Your task to perform on an android device: remove spam from my inbox in the gmail app Image 0: 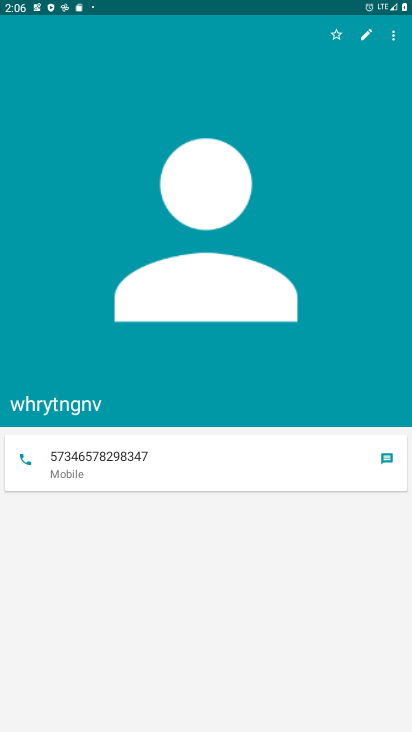
Step 0: press home button
Your task to perform on an android device: remove spam from my inbox in the gmail app Image 1: 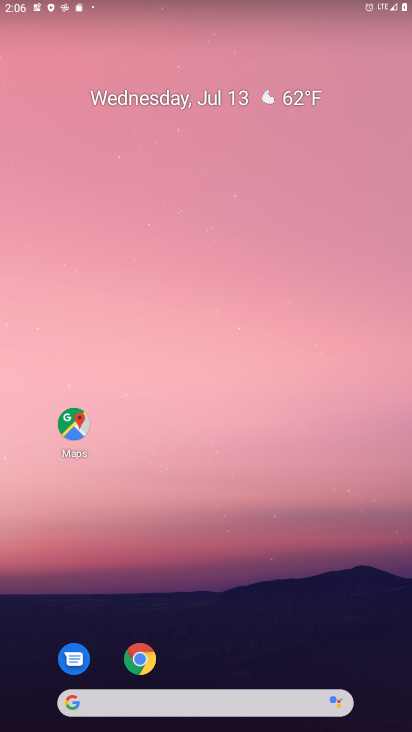
Step 1: drag from (226, 710) to (226, 241)
Your task to perform on an android device: remove spam from my inbox in the gmail app Image 2: 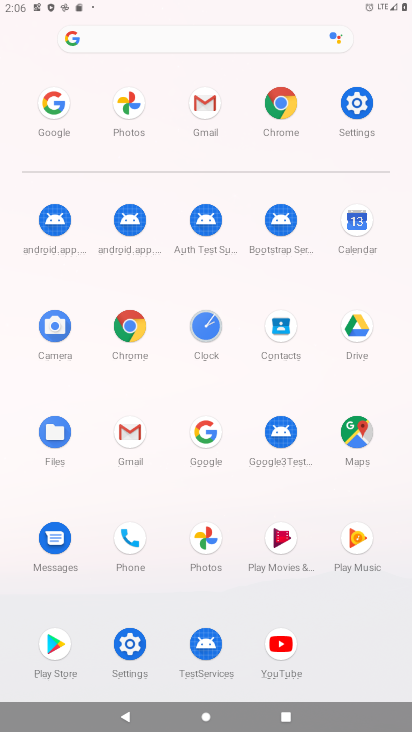
Step 2: click (132, 429)
Your task to perform on an android device: remove spam from my inbox in the gmail app Image 3: 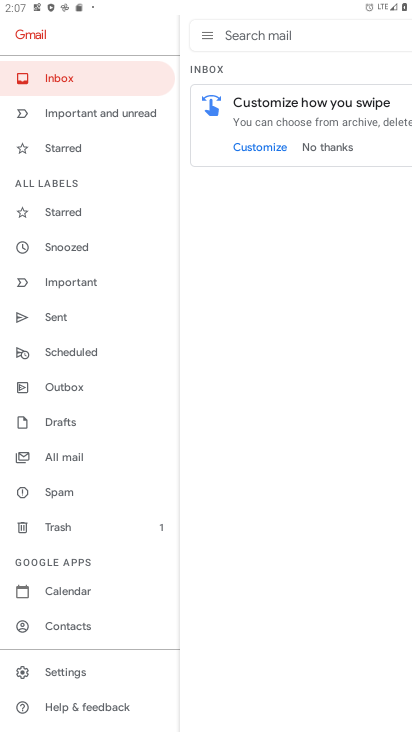
Step 3: task complete